Your task to perform on an android device: turn off smart reply in the gmail app Image 0: 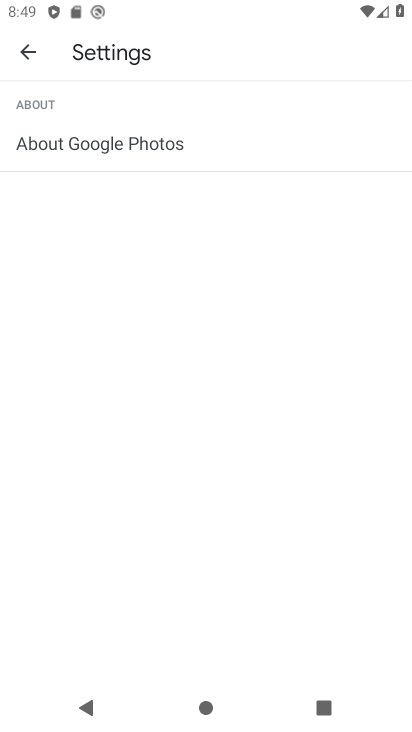
Step 0: drag from (188, 633) to (333, 151)
Your task to perform on an android device: turn off smart reply in the gmail app Image 1: 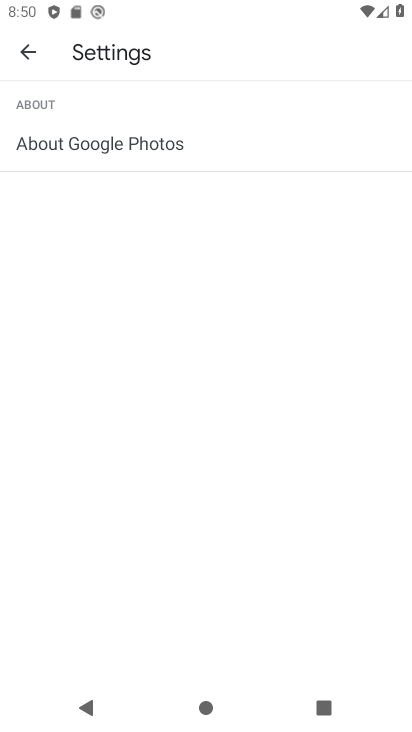
Step 1: press home button
Your task to perform on an android device: turn off smart reply in the gmail app Image 2: 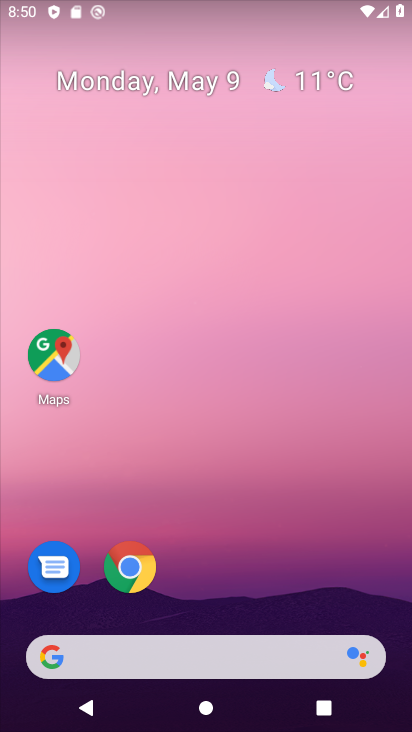
Step 2: drag from (196, 638) to (335, 42)
Your task to perform on an android device: turn off smart reply in the gmail app Image 3: 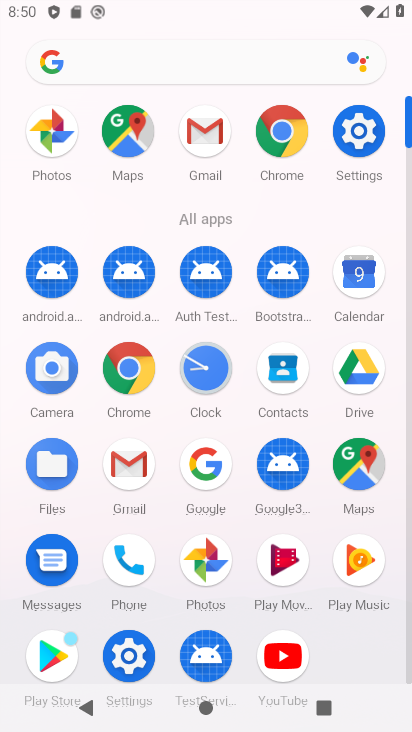
Step 3: click (127, 475)
Your task to perform on an android device: turn off smart reply in the gmail app Image 4: 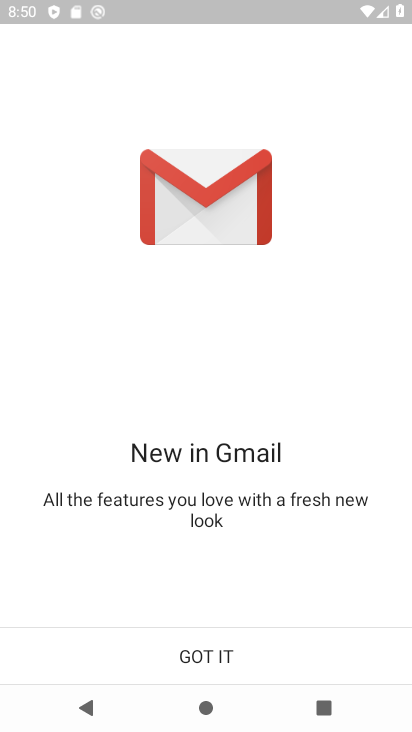
Step 4: click (255, 686)
Your task to perform on an android device: turn off smart reply in the gmail app Image 5: 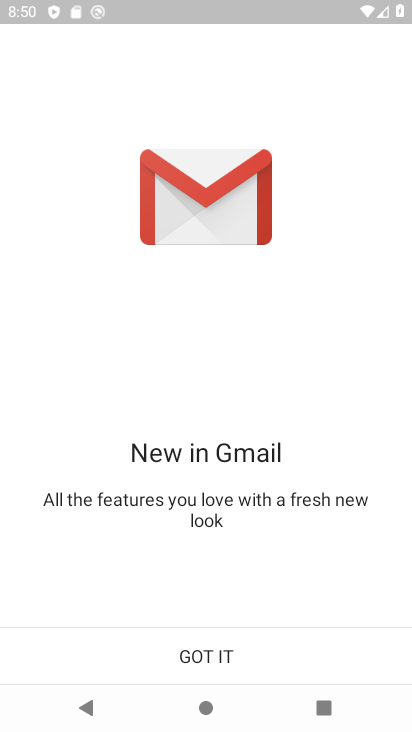
Step 5: click (236, 662)
Your task to perform on an android device: turn off smart reply in the gmail app Image 6: 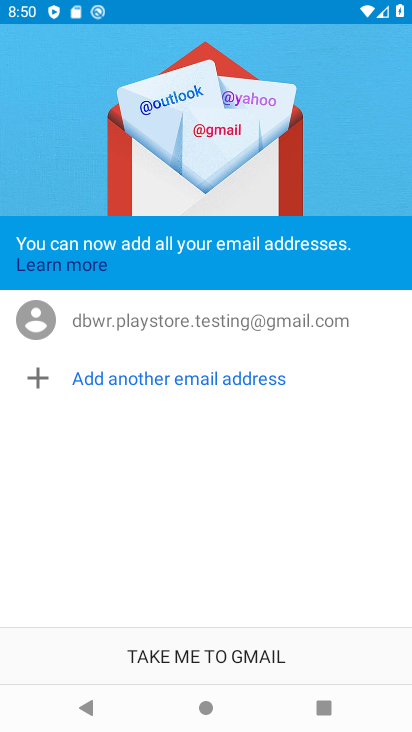
Step 6: click (236, 645)
Your task to perform on an android device: turn off smart reply in the gmail app Image 7: 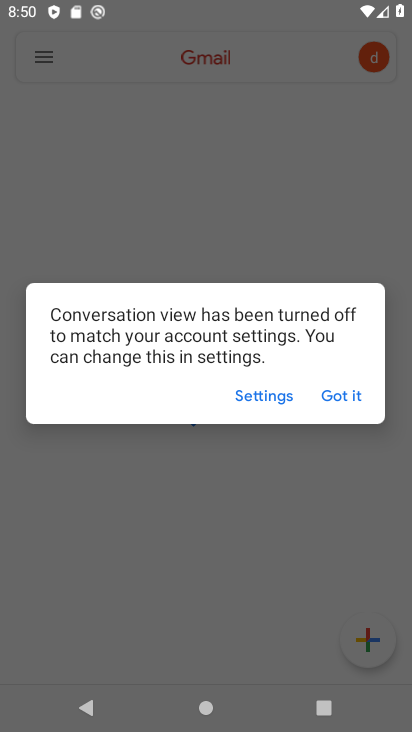
Step 7: click (349, 404)
Your task to perform on an android device: turn off smart reply in the gmail app Image 8: 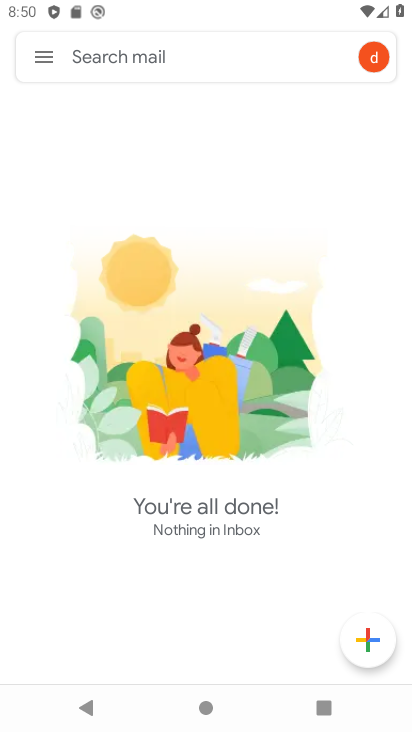
Step 8: click (42, 56)
Your task to perform on an android device: turn off smart reply in the gmail app Image 9: 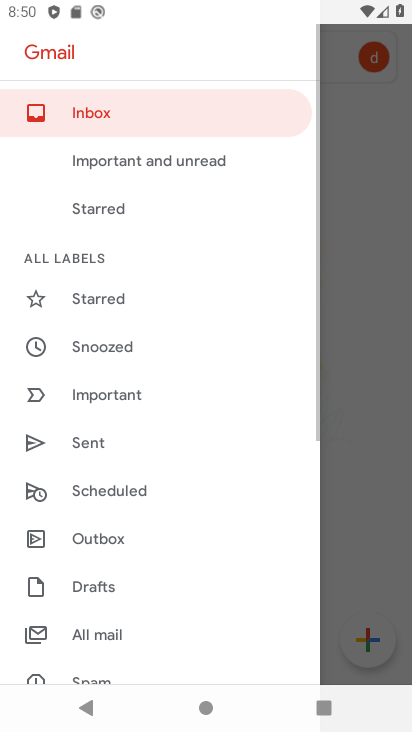
Step 9: drag from (129, 612) to (199, 284)
Your task to perform on an android device: turn off smart reply in the gmail app Image 10: 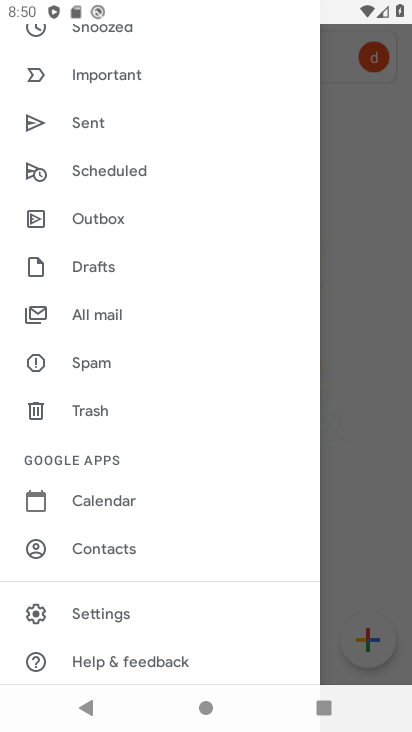
Step 10: click (135, 625)
Your task to perform on an android device: turn off smart reply in the gmail app Image 11: 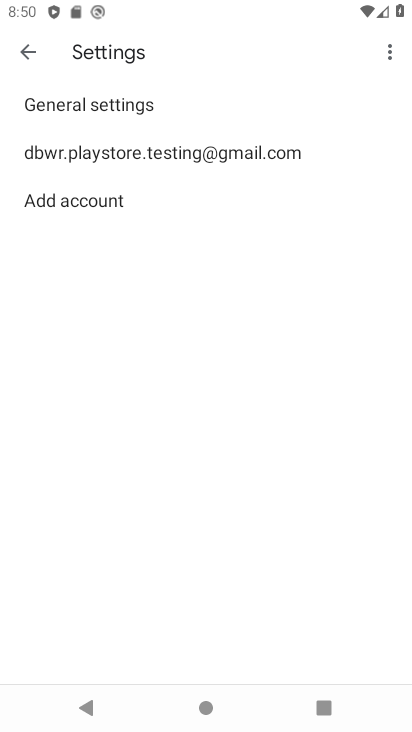
Step 11: click (237, 135)
Your task to perform on an android device: turn off smart reply in the gmail app Image 12: 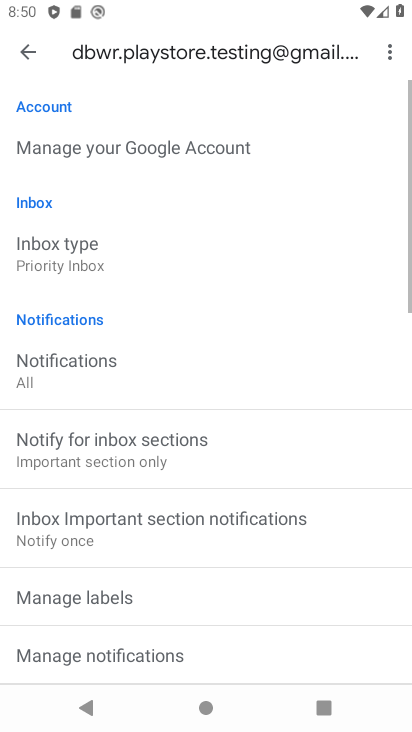
Step 12: drag from (126, 613) to (215, 84)
Your task to perform on an android device: turn off smart reply in the gmail app Image 13: 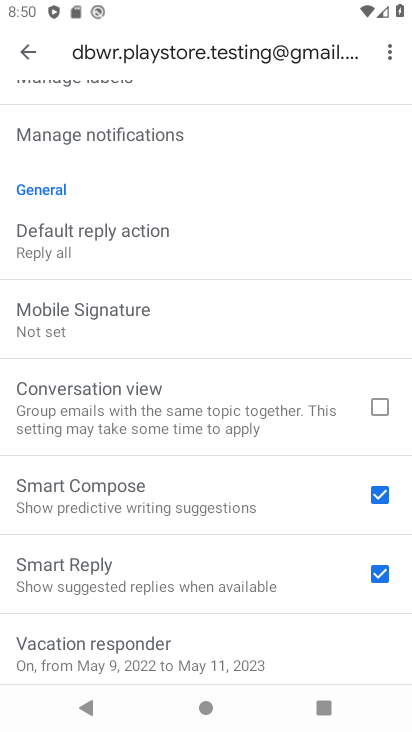
Step 13: click (398, 574)
Your task to perform on an android device: turn off smart reply in the gmail app Image 14: 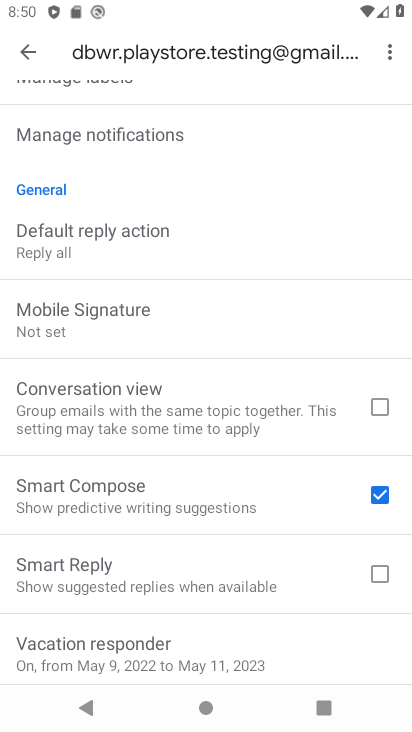
Step 14: task complete